Your task to perform on an android device: turn off translation in the chrome app Image 0: 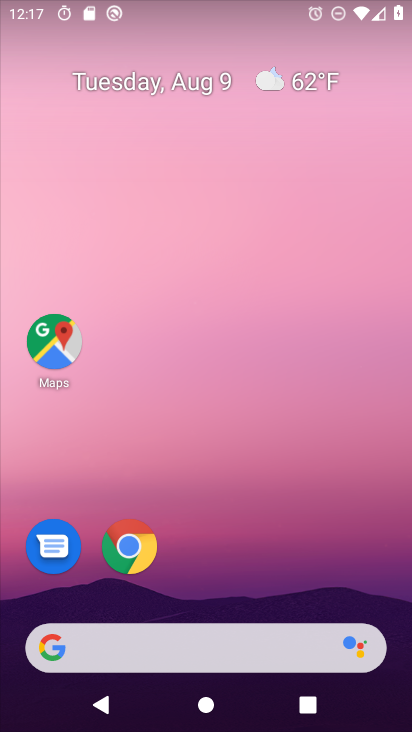
Step 0: press home button
Your task to perform on an android device: turn off translation in the chrome app Image 1: 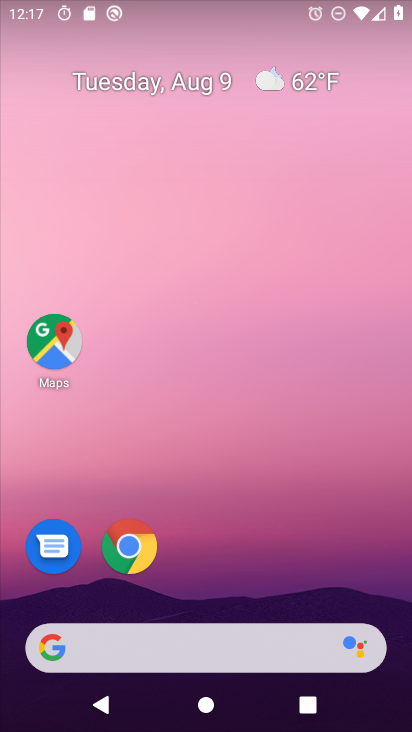
Step 1: drag from (227, 600) to (245, 97)
Your task to perform on an android device: turn off translation in the chrome app Image 2: 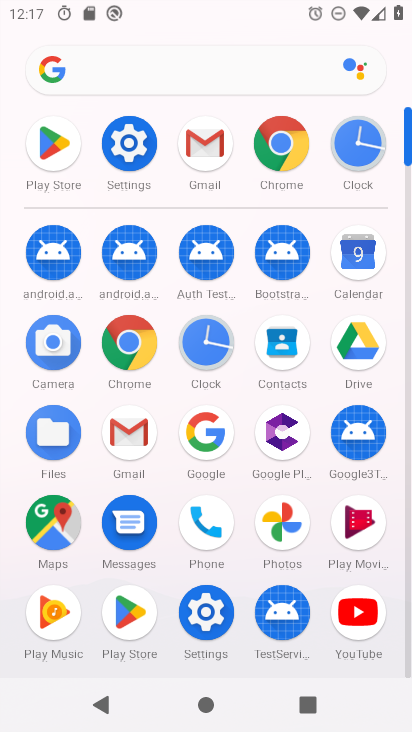
Step 2: click (125, 335)
Your task to perform on an android device: turn off translation in the chrome app Image 3: 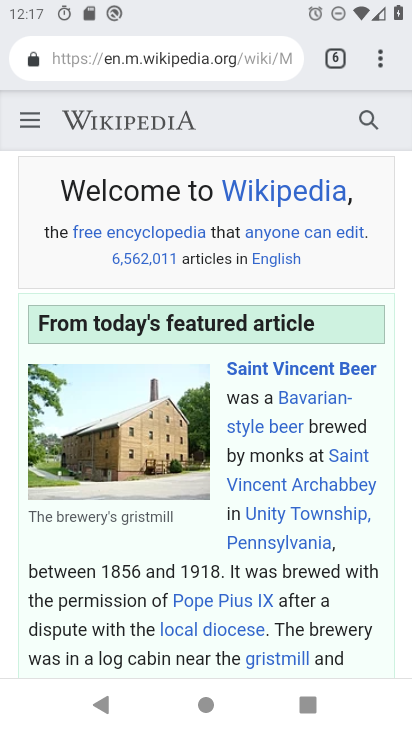
Step 3: click (378, 51)
Your task to perform on an android device: turn off translation in the chrome app Image 4: 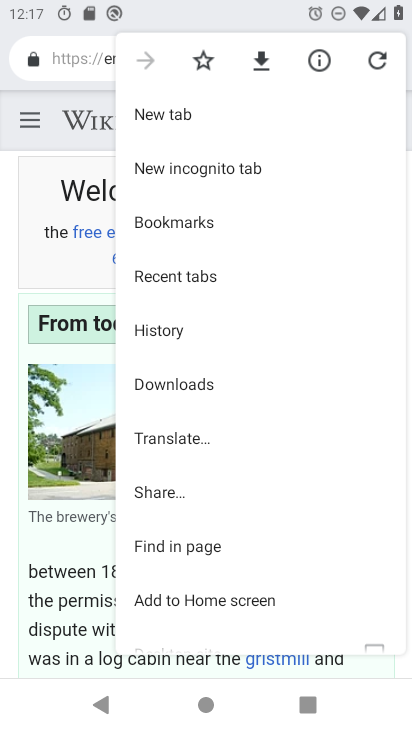
Step 4: drag from (288, 604) to (331, 89)
Your task to perform on an android device: turn off translation in the chrome app Image 5: 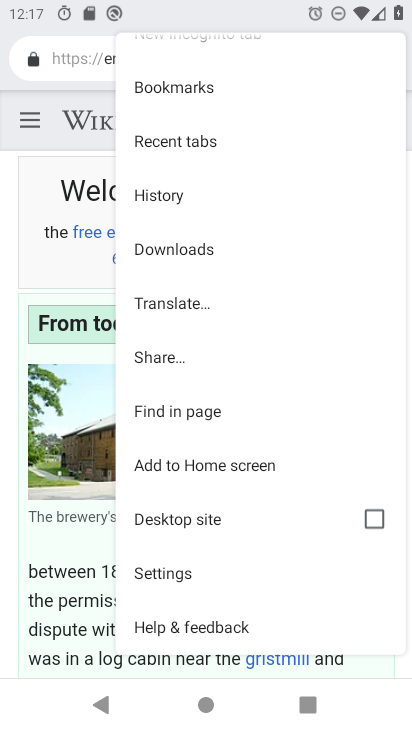
Step 5: click (200, 569)
Your task to perform on an android device: turn off translation in the chrome app Image 6: 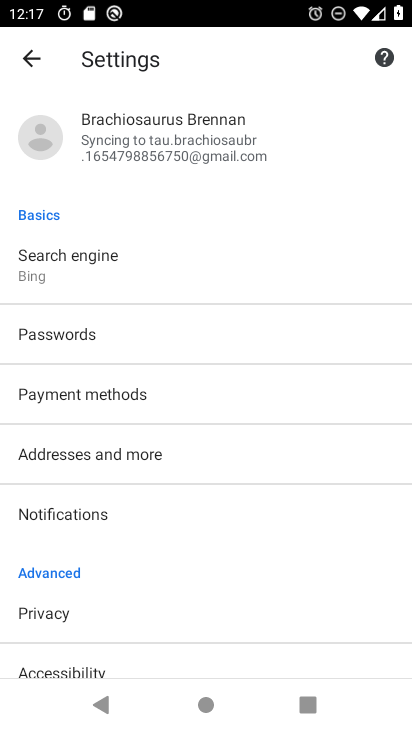
Step 6: drag from (217, 632) to (226, 42)
Your task to perform on an android device: turn off translation in the chrome app Image 7: 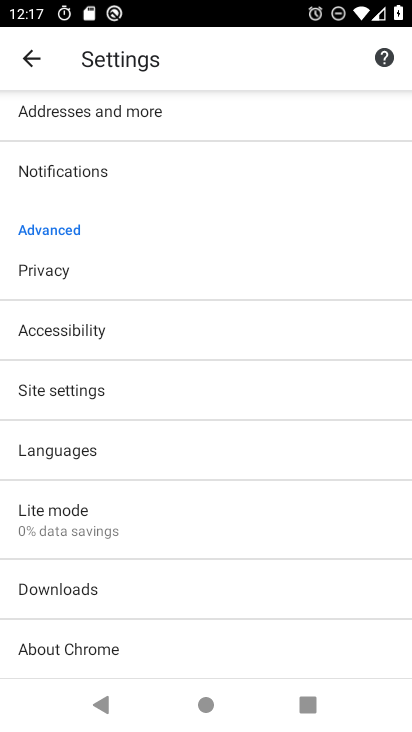
Step 7: click (125, 453)
Your task to perform on an android device: turn off translation in the chrome app Image 8: 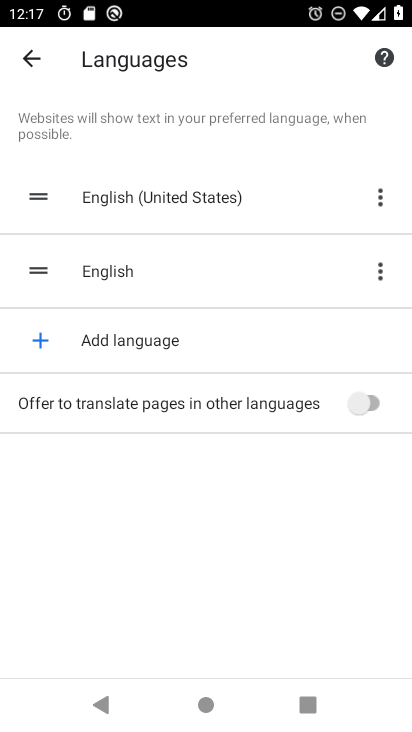
Step 8: task complete